Your task to perform on an android device: turn off data saver in the chrome app Image 0: 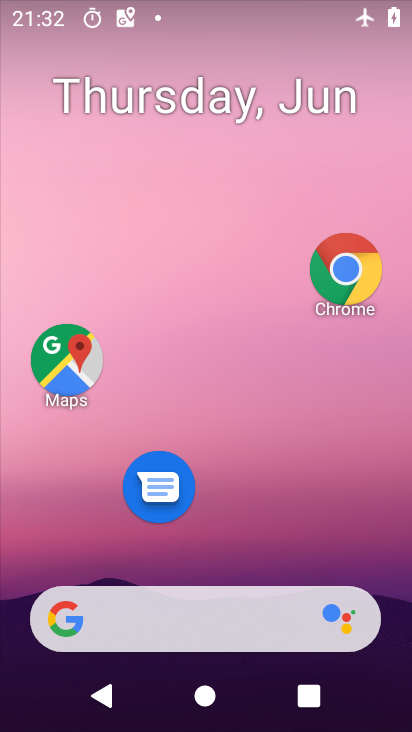
Step 0: drag from (247, 510) to (225, 116)
Your task to perform on an android device: turn off data saver in the chrome app Image 1: 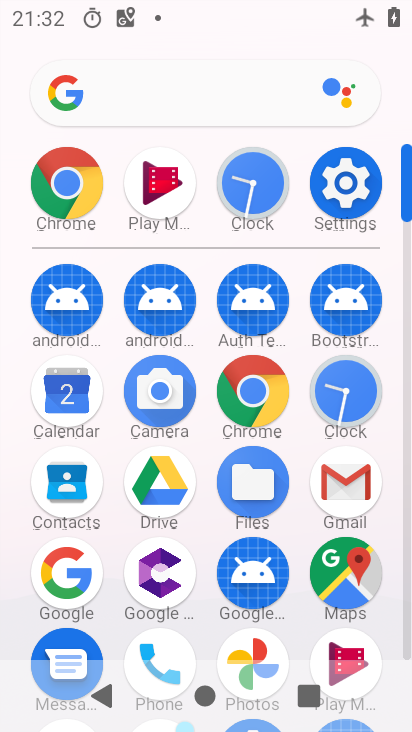
Step 1: click (265, 400)
Your task to perform on an android device: turn off data saver in the chrome app Image 2: 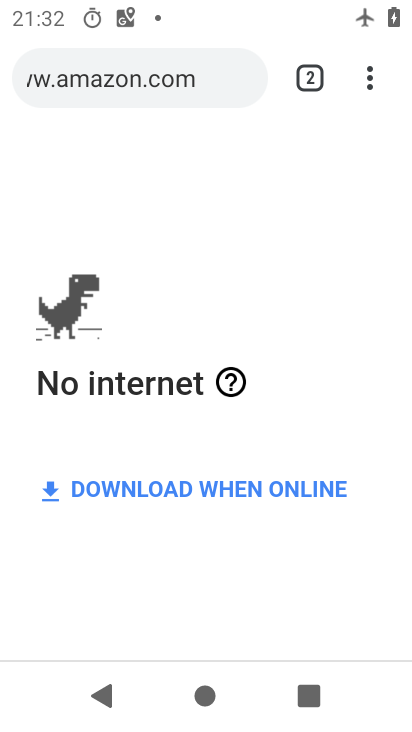
Step 2: drag from (379, 74) to (166, 568)
Your task to perform on an android device: turn off data saver in the chrome app Image 3: 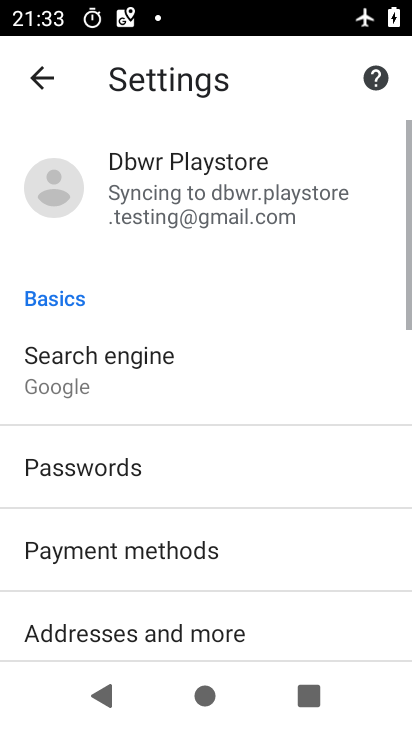
Step 3: drag from (212, 488) to (276, 105)
Your task to perform on an android device: turn off data saver in the chrome app Image 4: 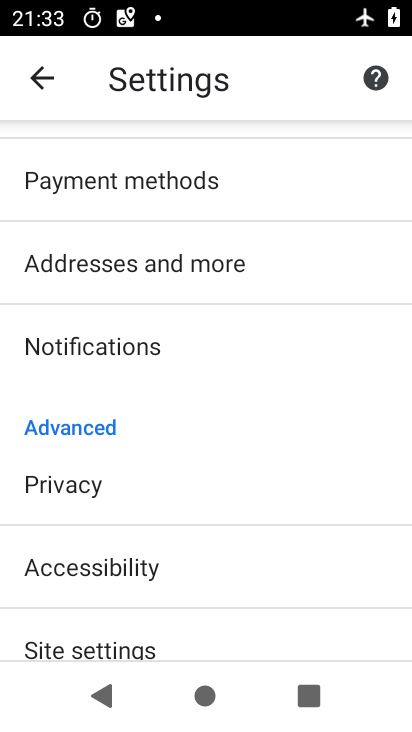
Step 4: drag from (191, 601) to (239, 205)
Your task to perform on an android device: turn off data saver in the chrome app Image 5: 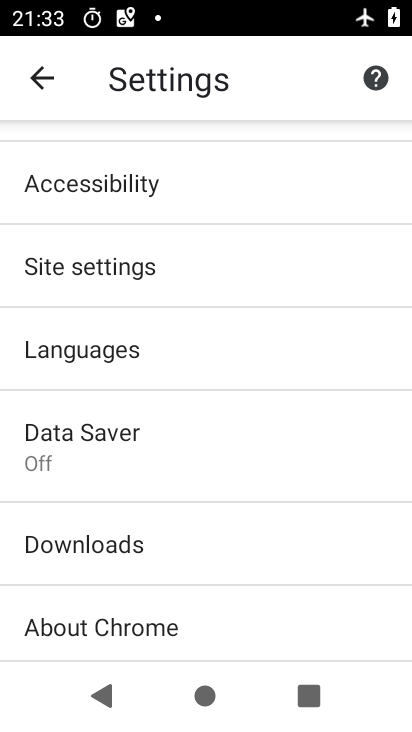
Step 5: click (134, 471)
Your task to perform on an android device: turn off data saver in the chrome app Image 6: 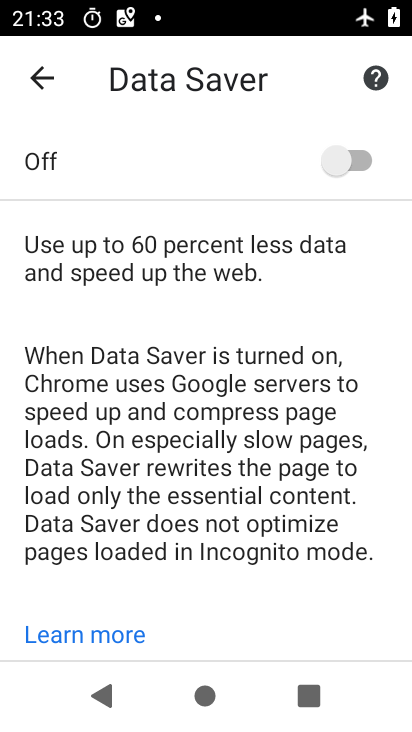
Step 6: task complete